Your task to perform on an android device: Open calendar and show me the second week of next month Image 0: 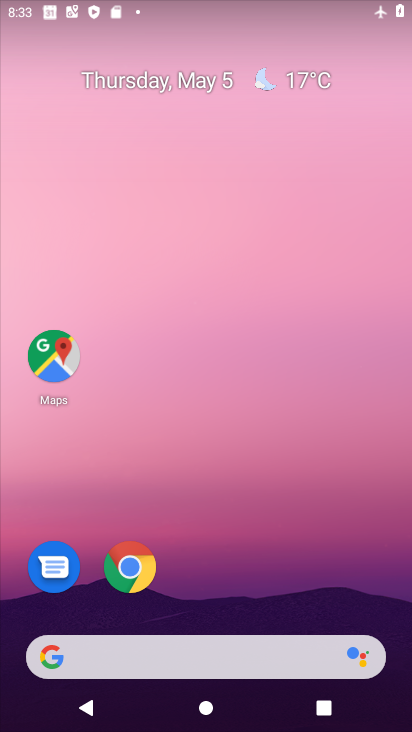
Step 0: drag from (252, 501) to (313, 44)
Your task to perform on an android device: Open calendar and show me the second week of next month Image 1: 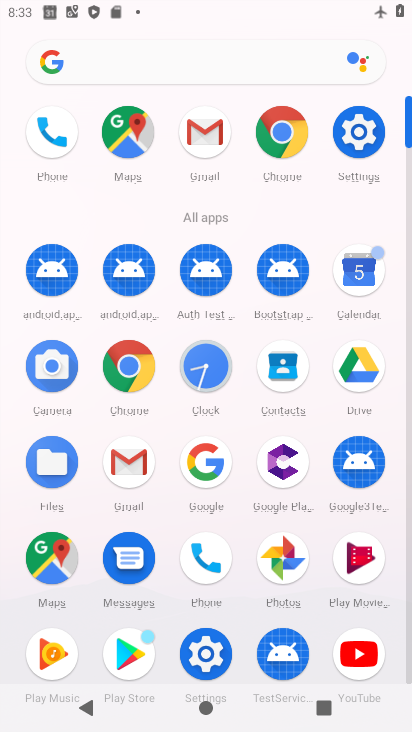
Step 1: click (362, 271)
Your task to perform on an android device: Open calendar and show me the second week of next month Image 2: 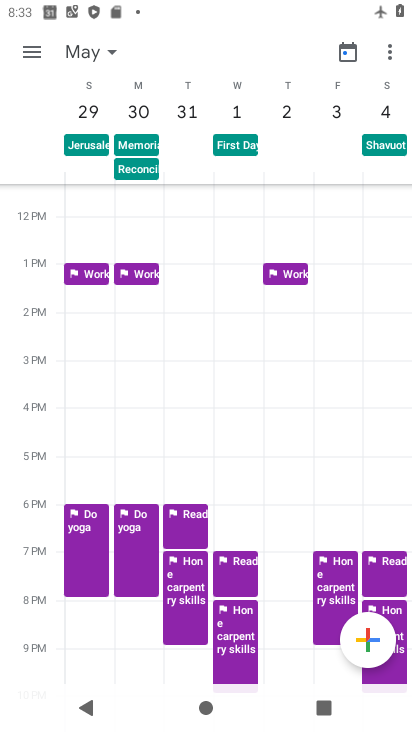
Step 2: task complete